Your task to perform on an android device: Check the news Image 0: 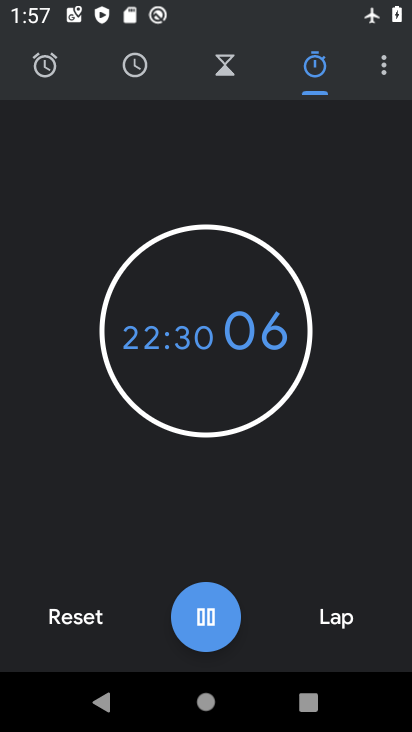
Step 0: press home button
Your task to perform on an android device: Check the news Image 1: 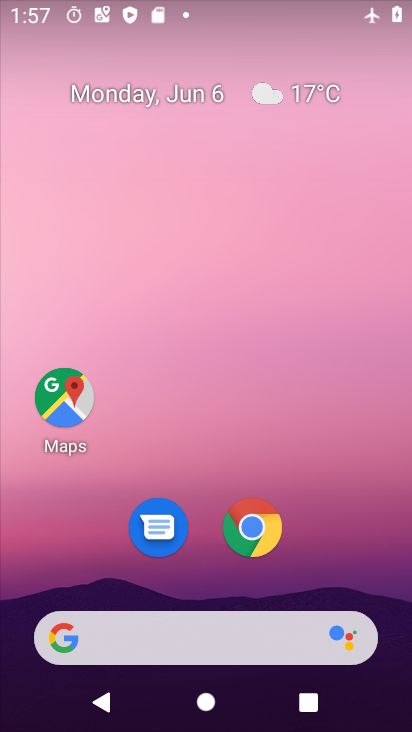
Step 1: task complete